Your task to perform on an android device: Open notification settings Image 0: 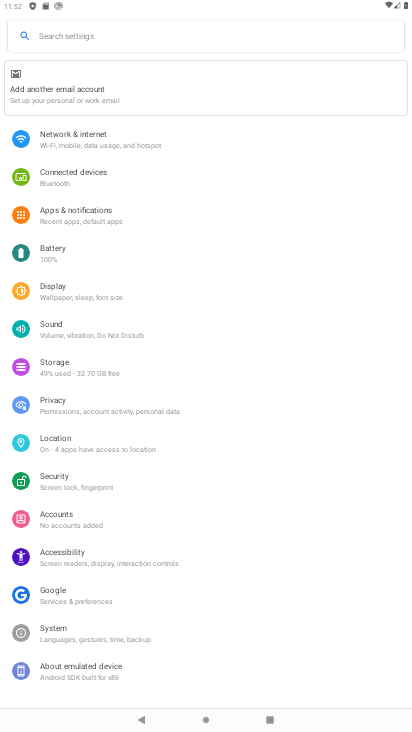
Step 0: press home button
Your task to perform on an android device: Open notification settings Image 1: 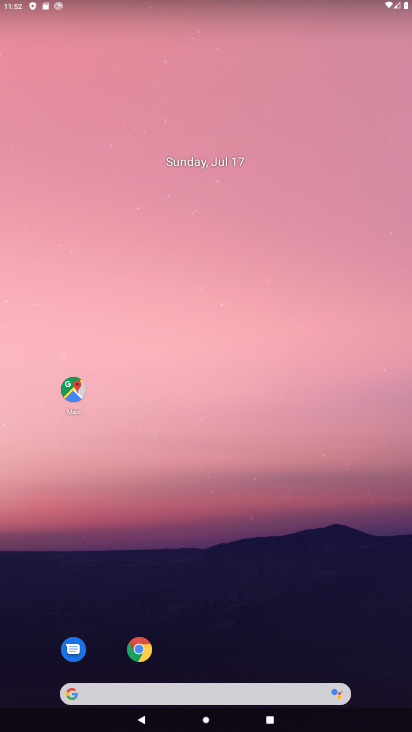
Step 1: drag from (153, 430) to (282, 103)
Your task to perform on an android device: Open notification settings Image 2: 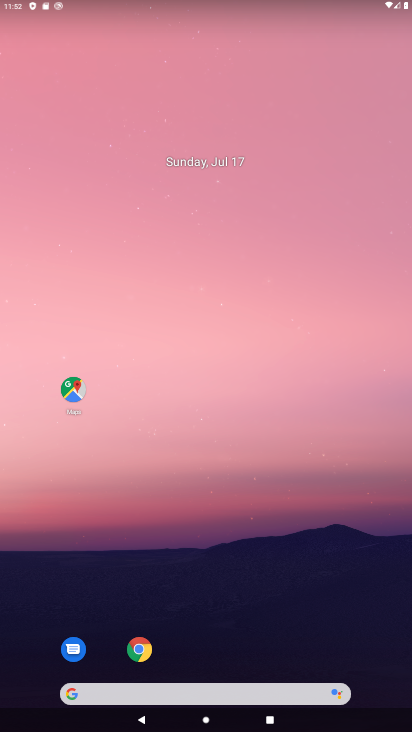
Step 2: drag from (15, 687) to (220, 354)
Your task to perform on an android device: Open notification settings Image 3: 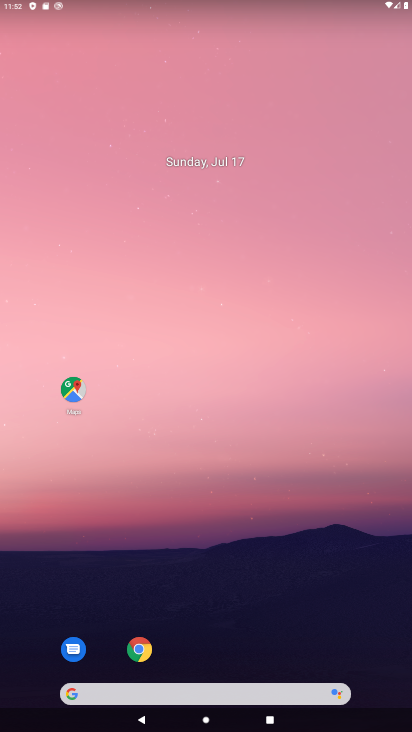
Step 3: drag from (47, 698) to (302, 73)
Your task to perform on an android device: Open notification settings Image 4: 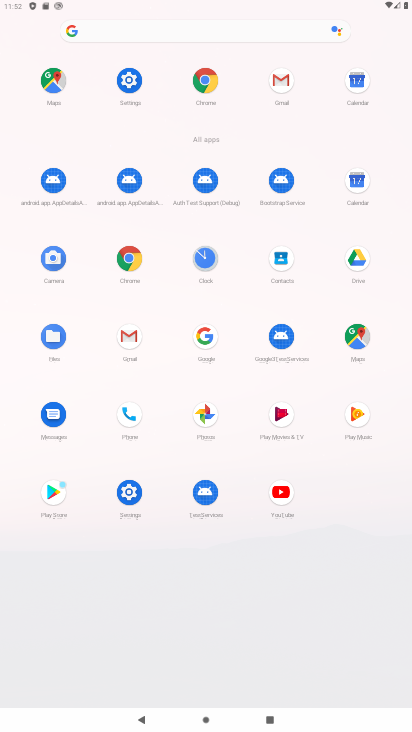
Step 4: click (127, 495)
Your task to perform on an android device: Open notification settings Image 5: 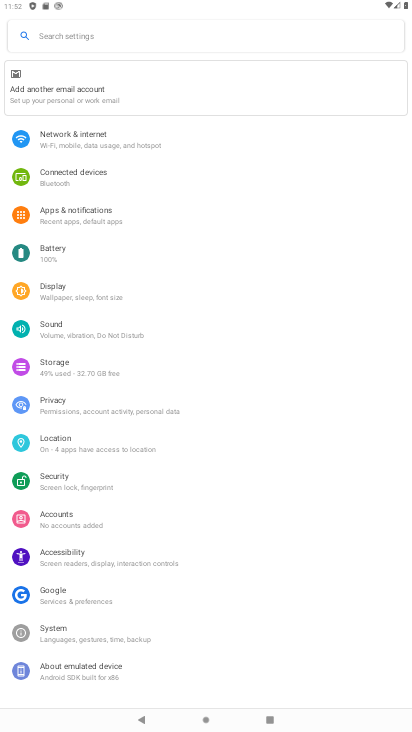
Step 5: click (80, 179)
Your task to perform on an android device: Open notification settings Image 6: 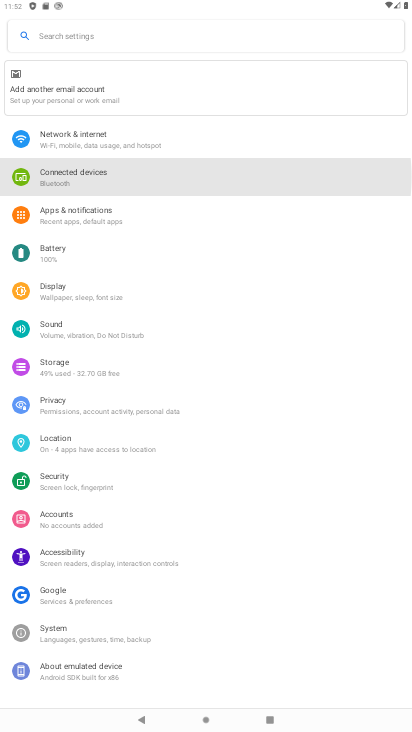
Step 6: click (86, 207)
Your task to perform on an android device: Open notification settings Image 7: 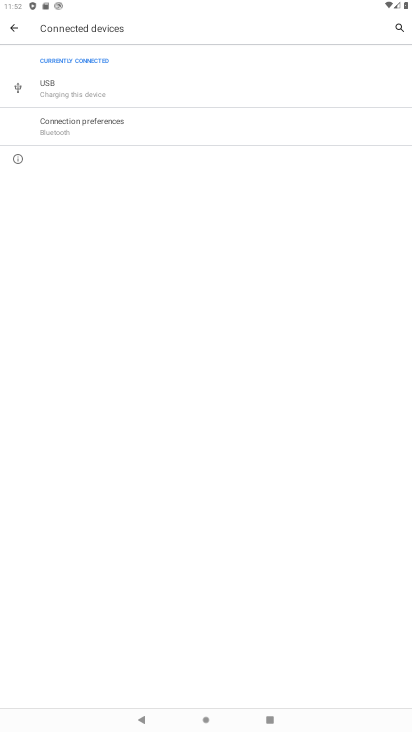
Step 7: click (16, 30)
Your task to perform on an android device: Open notification settings Image 8: 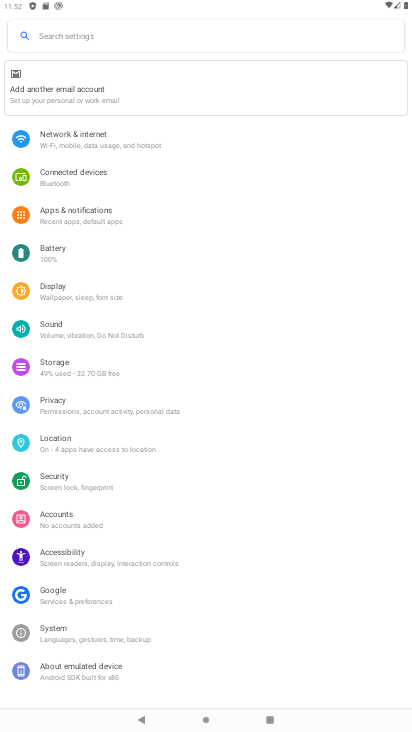
Step 8: click (84, 219)
Your task to perform on an android device: Open notification settings Image 9: 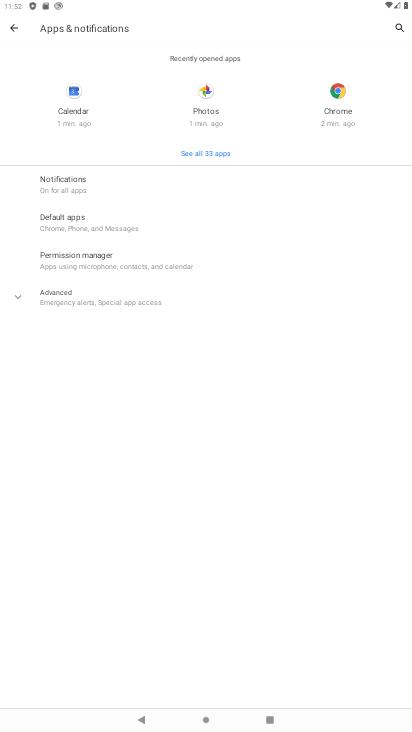
Step 9: task complete